Your task to perform on an android device: empty trash in the gmail app Image 0: 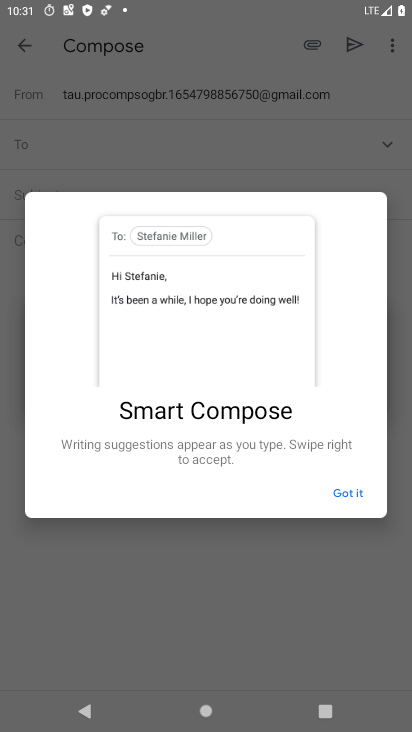
Step 0: press home button
Your task to perform on an android device: empty trash in the gmail app Image 1: 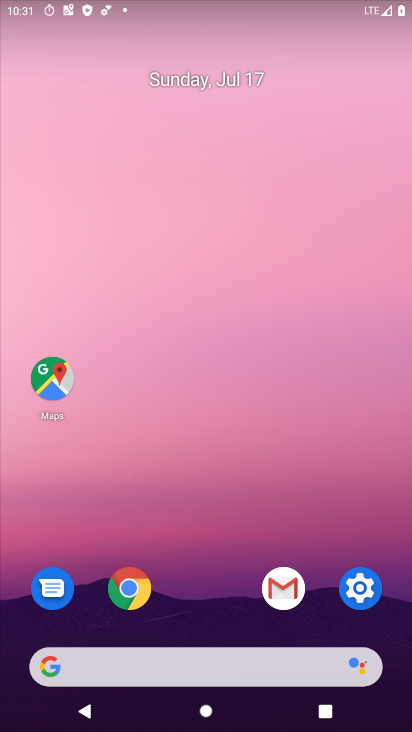
Step 1: click (277, 597)
Your task to perform on an android device: empty trash in the gmail app Image 2: 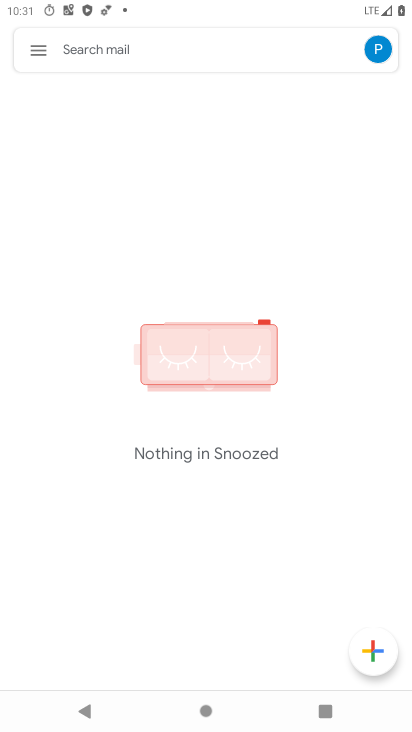
Step 2: click (46, 60)
Your task to perform on an android device: empty trash in the gmail app Image 3: 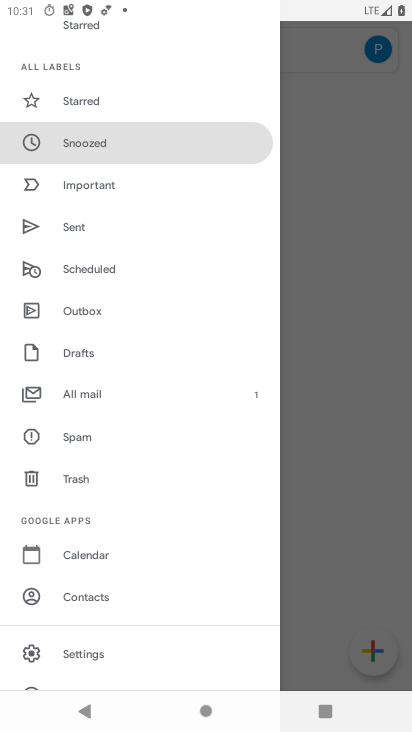
Step 3: click (100, 481)
Your task to perform on an android device: empty trash in the gmail app Image 4: 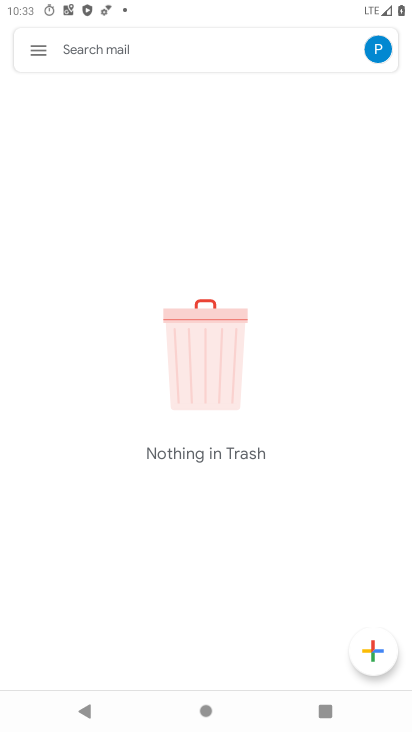
Step 4: task complete